Your task to perform on an android device: turn on showing notifications on the lock screen Image 0: 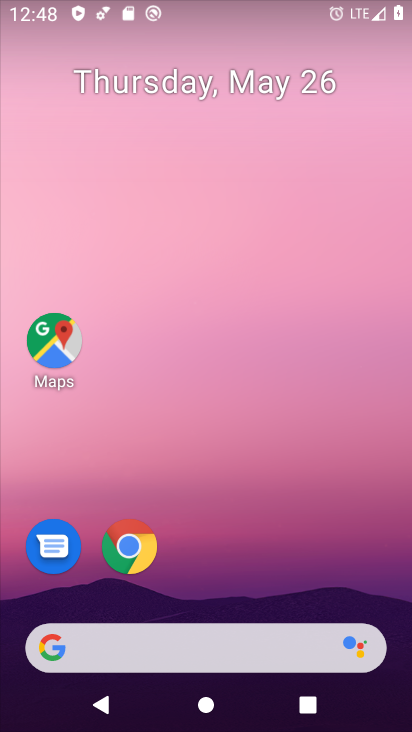
Step 0: drag from (391, 626) to (215, 60)
Your task to perform on an android device: turn on showing notifications on the lock screen Image 1: 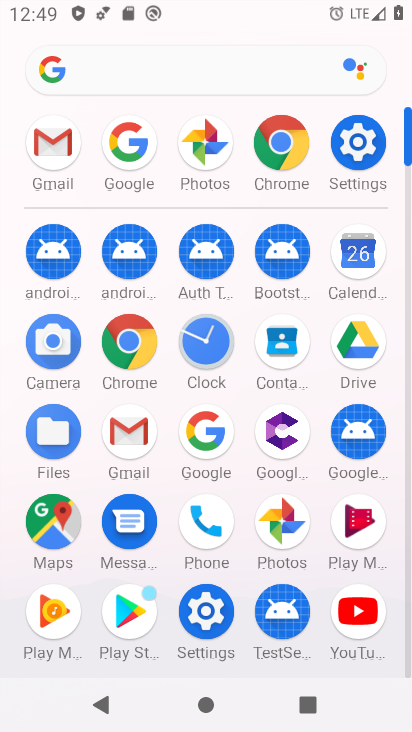
Step 1: click (366, 137)
Your task to perform on an android device: turn on showing notifications on the lock screen Image 2: 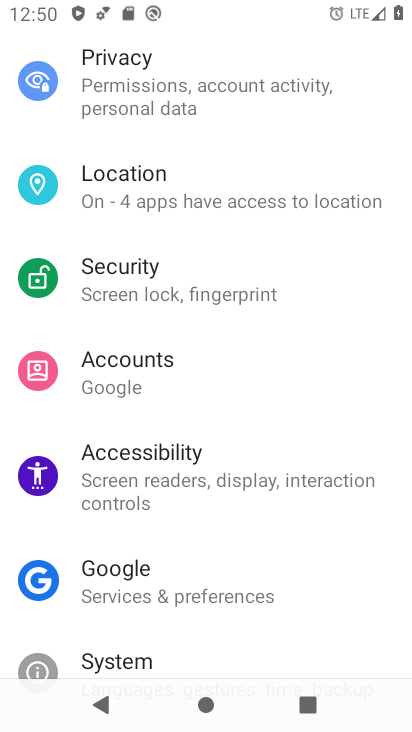
Step 2: drag from (185, 164) to (238, 510)
Your task to perform on an android device: turn on showing notifications on the lock screen Image 3: 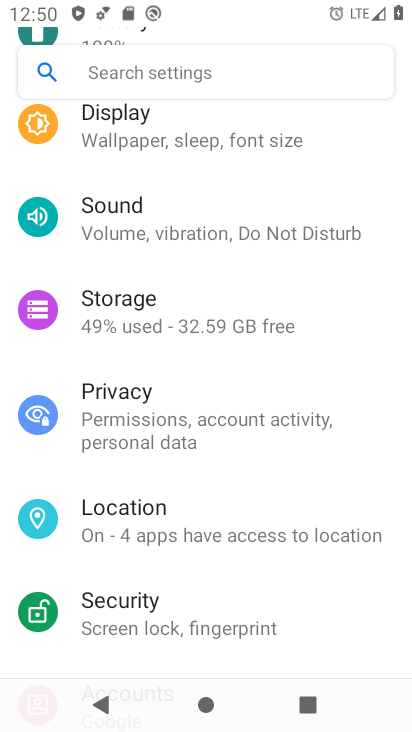
Step 3: drag from (213, 139) to (199, 582)
Your task to perform on an android device: turn on showing notifications on the lock screen Image 4: 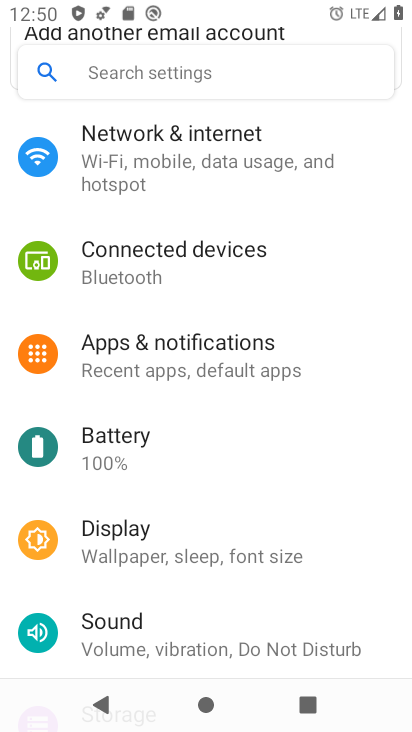
Step 4: click (232, 360)
Your task to perform on an android device: turn on showing notifications on the lock screen Image 5: 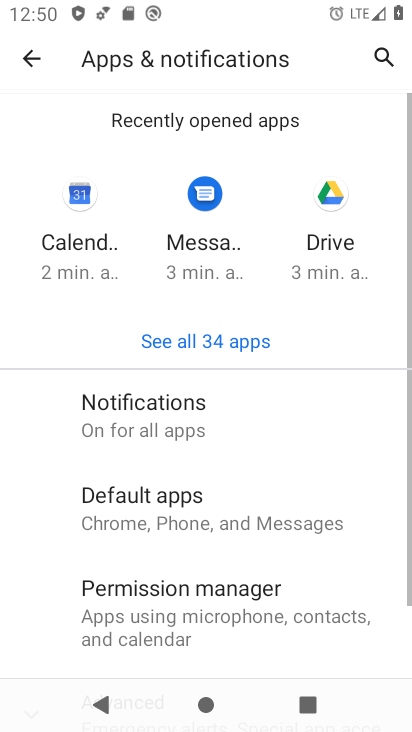
Step 5: click (185, 415)
Your task to perform on an android device: turn on showing notifications on the lock screen Image 6: 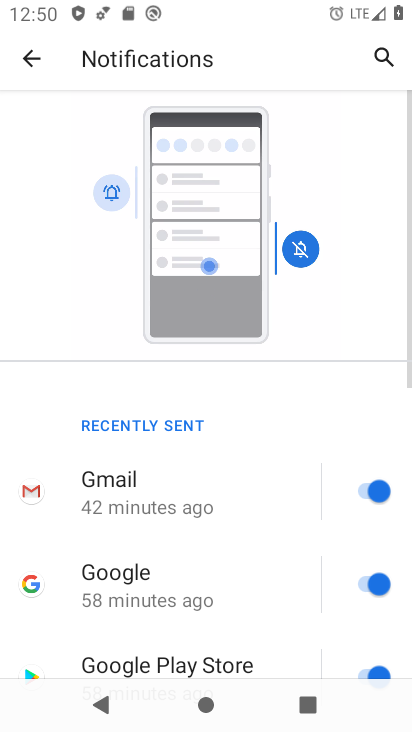
Step 6: drag from (198, 603) to (182, 70)
Your task to perform on an android device: turn on showing notifications on the lock screen Image 7: 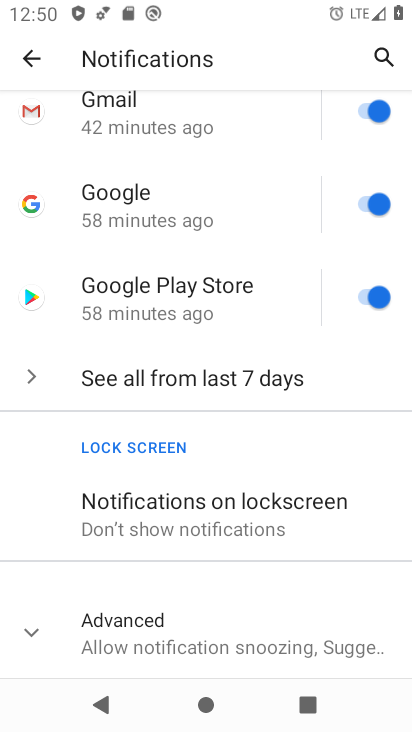
Step 7: click (233, 523)
Your task to perform on an android device: turn on showing notifications on the lock screen Image 8: 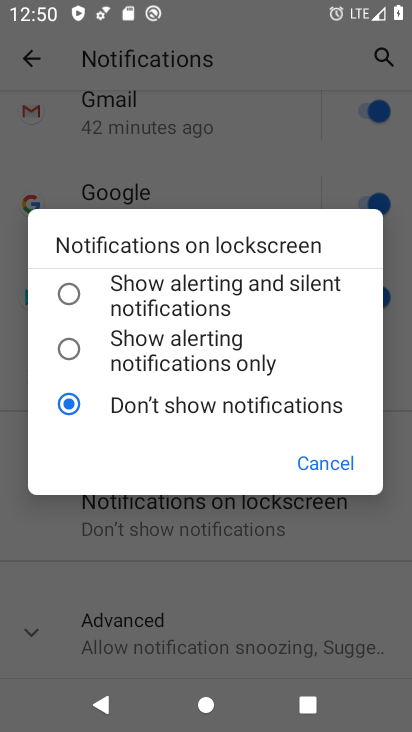
Step 8: click (73, 299)
Your task to perform on an android device: turn on showing notifications on the lock screen Image 9: 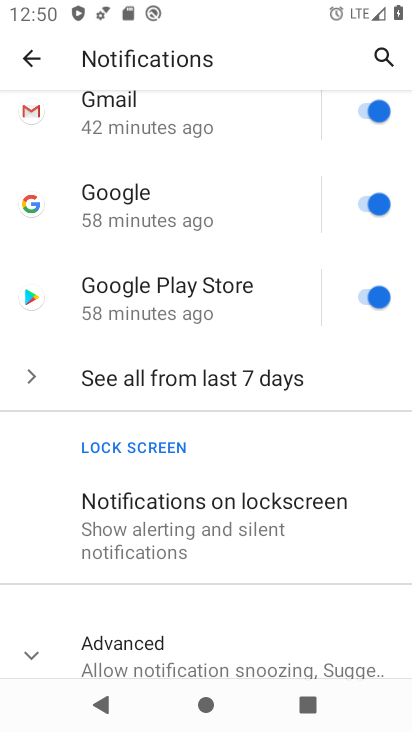
Step 9: task complete